Your task to perform on an android device: What is the recent news? Image 0: 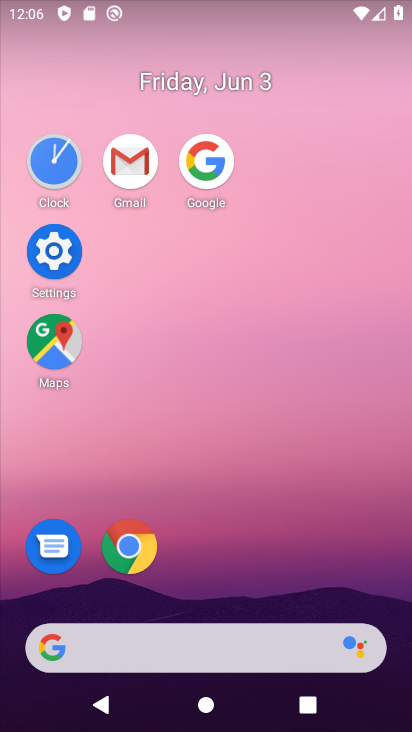
Step 0: click (217, 157)
Your task to perform on an android device: What is the recent news? Image 1: 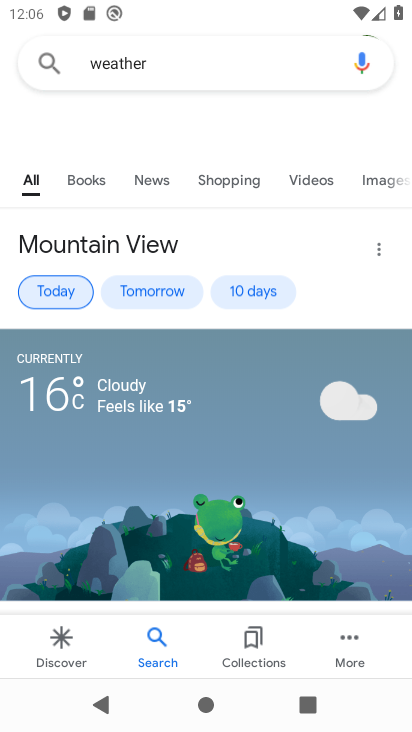
Step 1: click (195, 64)
Your task to perform on an android device: What is the recent news? Image 2: 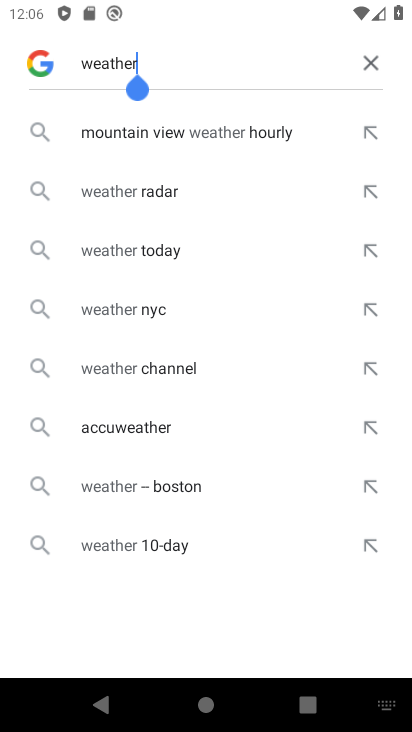
Step 2: click (371, 60)
Your task to perform on an android device: What is the recent news? Image 3: 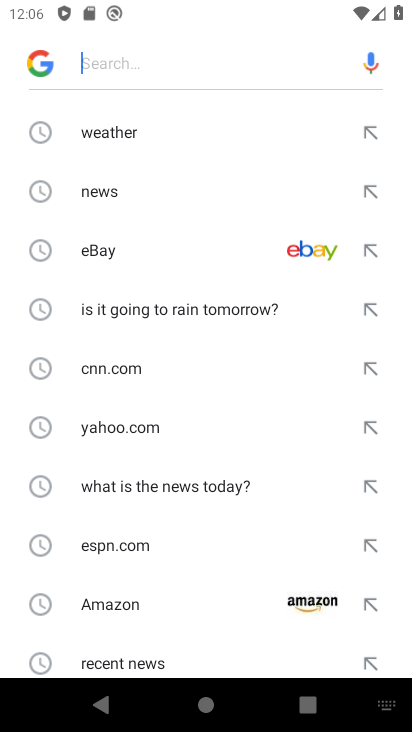
Step 3: click (150, 656)
Your task to perform on an android device: What is the recent news? Image 4: 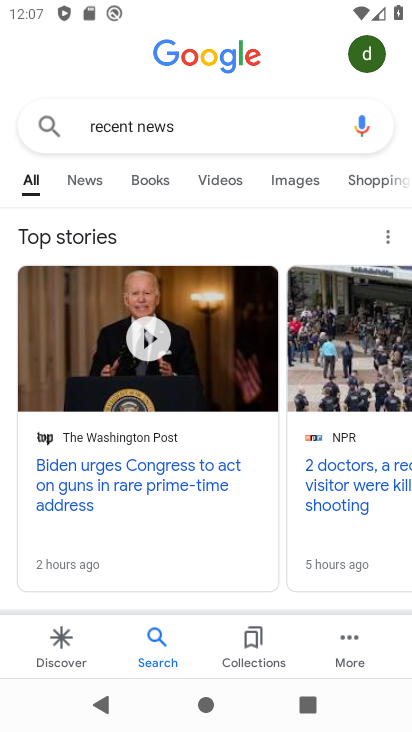
Step 4: task complete